Your task to perform on an android device: Go to Reddit.com Image 0: 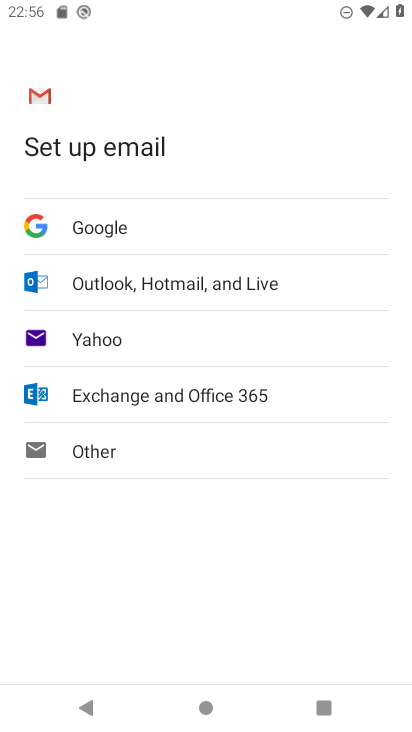
Step 0: press home button
Your task to perform on an android device: Go to Reddit.com Image 1: 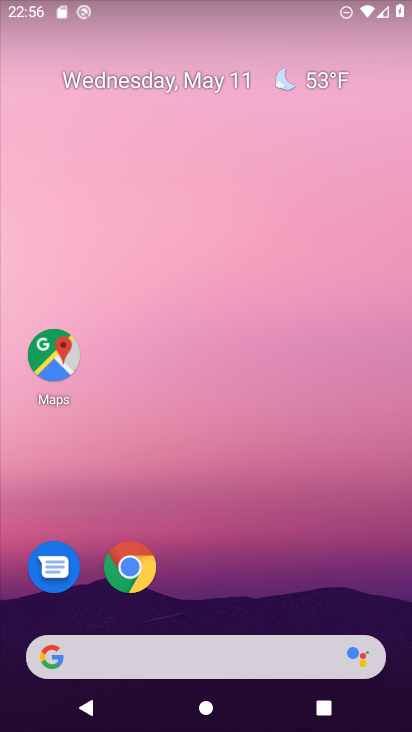
Step 1: click (174, 645)
Your task to perform on an android device: Go to Reddit.com Image 2: 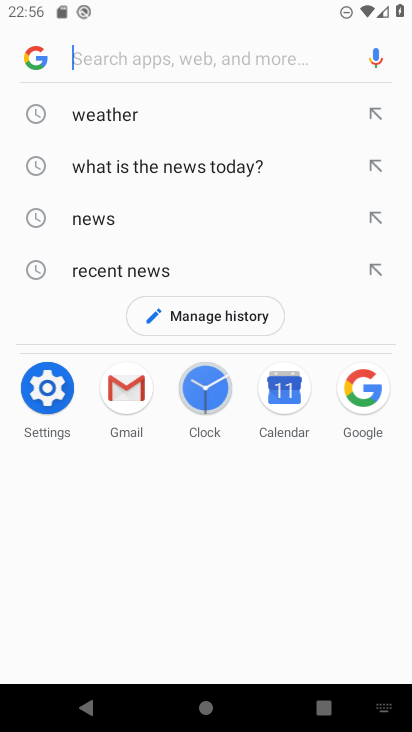
Step 2: type "reddit.com"
Your task to perform on an android device: Go to Reddit.com Image 3: 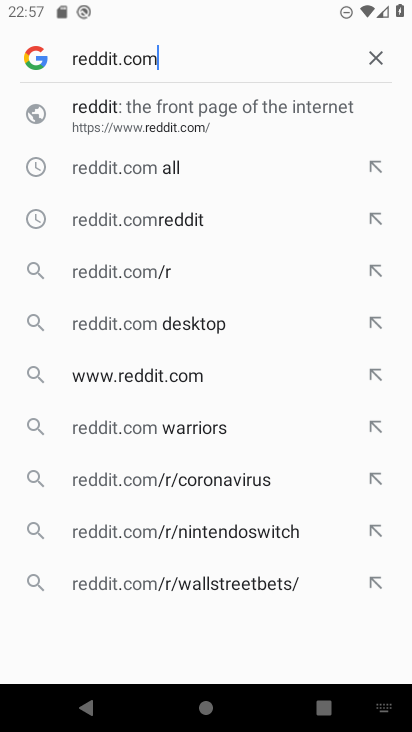
Step 3: click (198, 99)
Your task to perform on an android device: Go to Reddit.com Image 4: 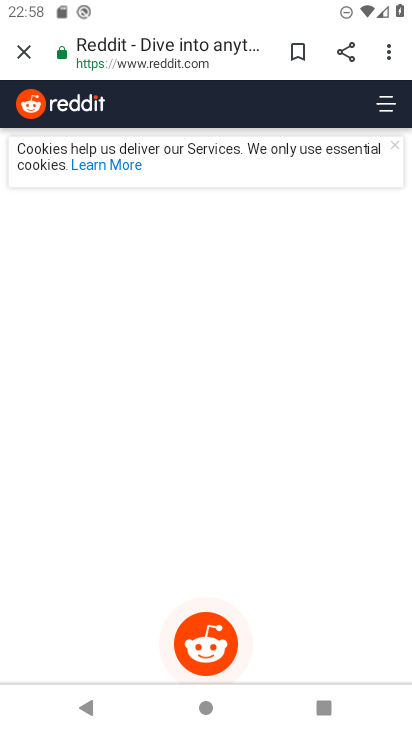
Step 4: task complete